Your task to perform on an android device: Go to accessibility settings Image 0: 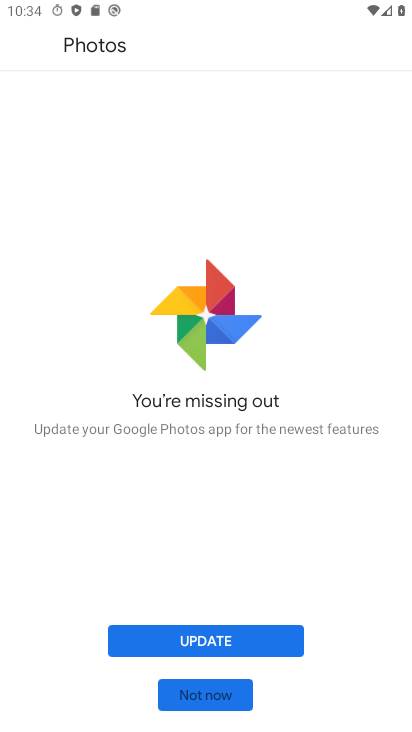
Step 0: press home button
Your task to perform on an android device: Go to accessibility settings Image 1: 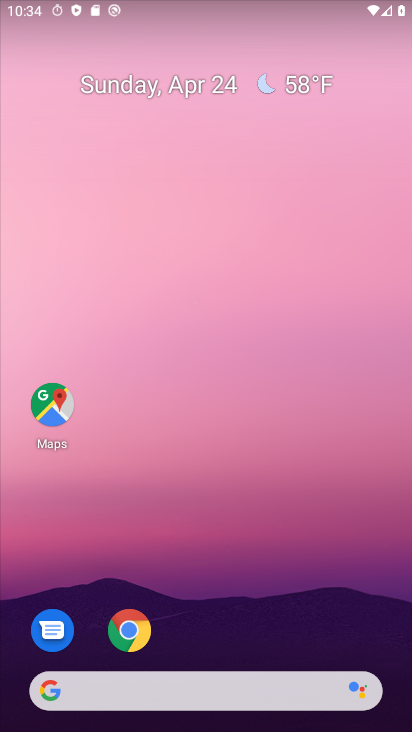
Step 1: drag from (231, 643) to (298, 225)
Your task to perform on an android device: Go to accessibility settings Image 2: 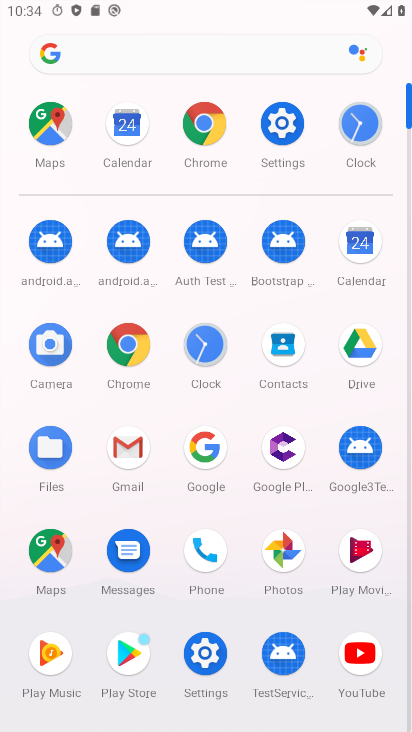
Step 2: click (210, 655)
Your task to perform on an android device: Go to accessibility settings Image 3: 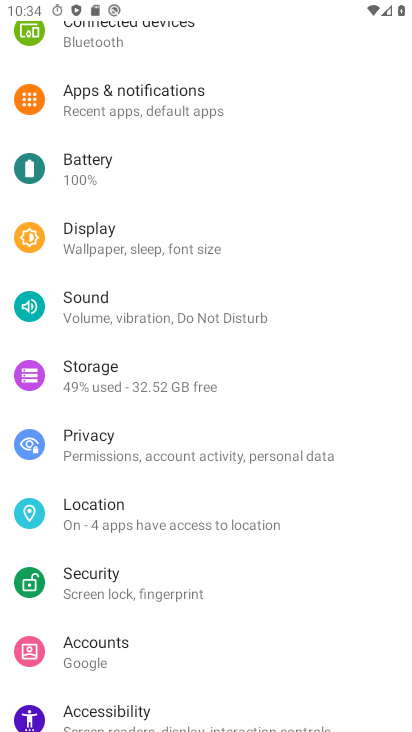
Step 3: drag from (207, 517) to (220, 291)
Your task to perform on an android device: Go to accessibility settings Image 4: 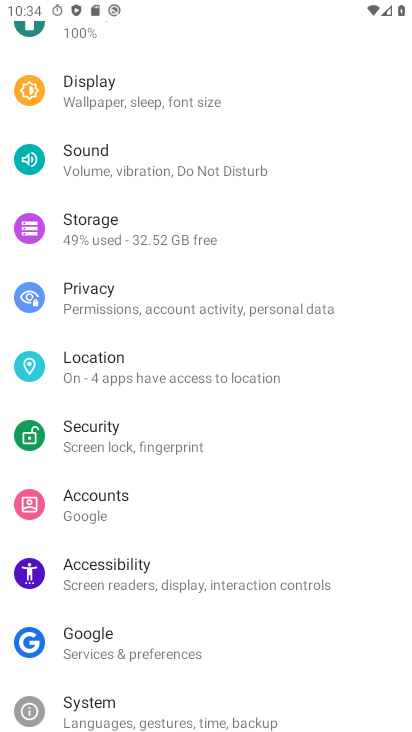
Step 4: click (217, 574)
Your task to perform on an android device: Go to accessibility settings Image 5: 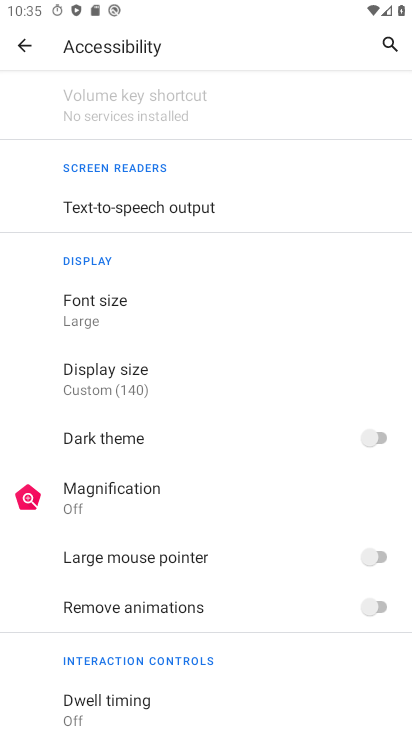
Step 5: task complete